Your task to perform on an android device: toggle airplane mode Image 0: 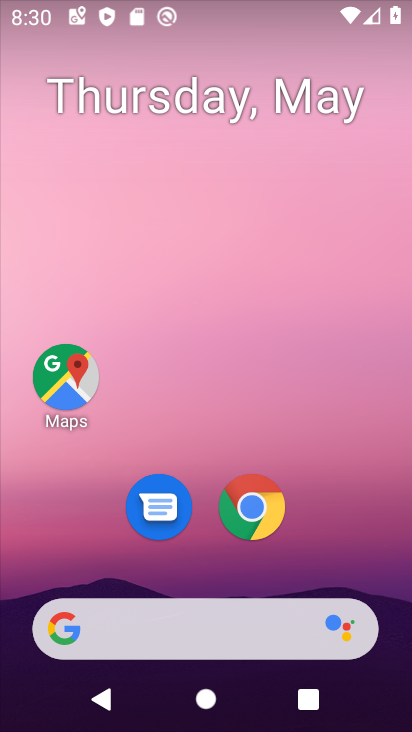
Step 0: drag from (381, 560) to (361, 95)
Your task to perform on an android device: toggle airplane mode Image 1: 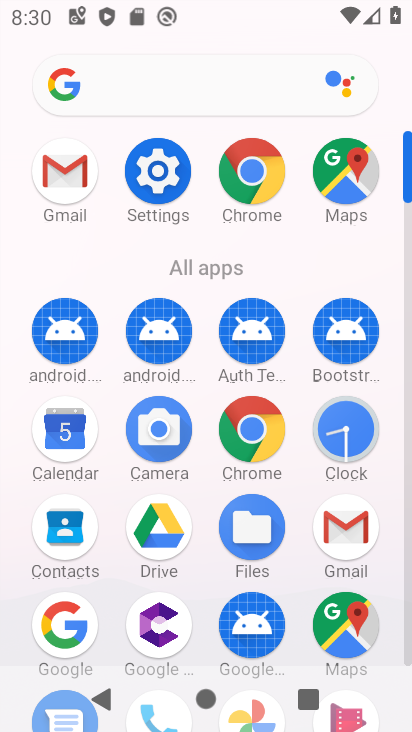
Step 1: click (153, 186)
Your task to perform on an android device: toggle airplane mode Image 2: 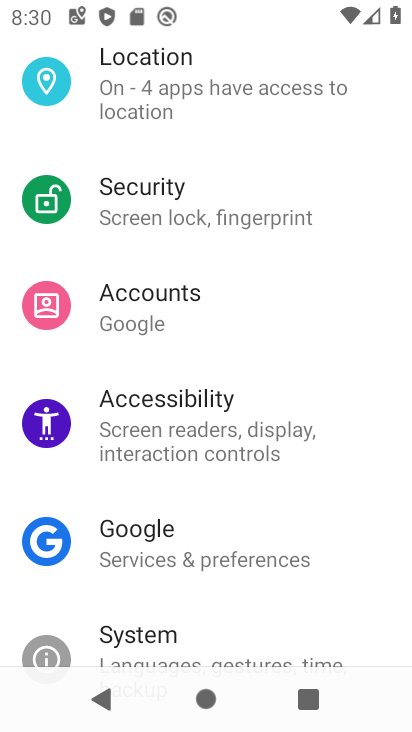
Step 2: drag from (336, 584) to (339, 214)
Your task to perform on an android device: toggle airplane mode Image 3: 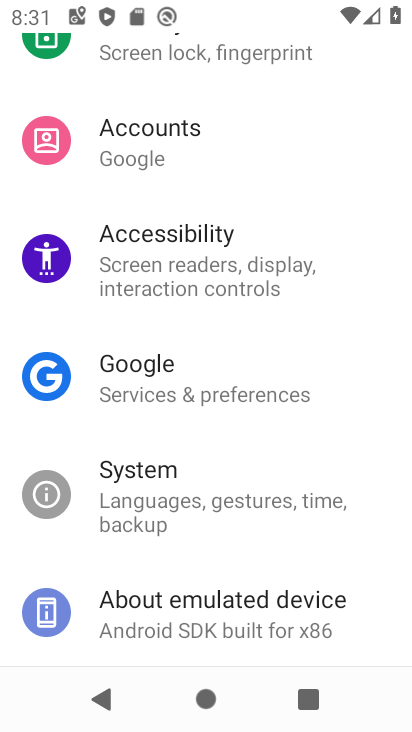
Step 3: drag from (310, 118) to (279, 636)
Your task to perform on an android device: toggle airplane mode Image 4: 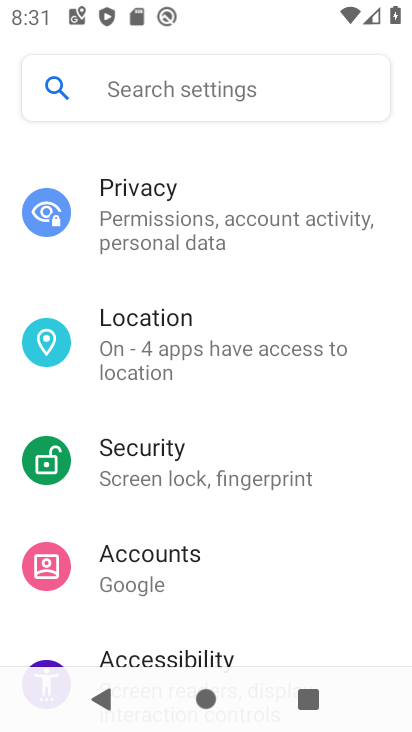
Step 4: drag from (301, 191) to (294, 574)
Your task to perform on an android device: toggle airplane mode Image 5: 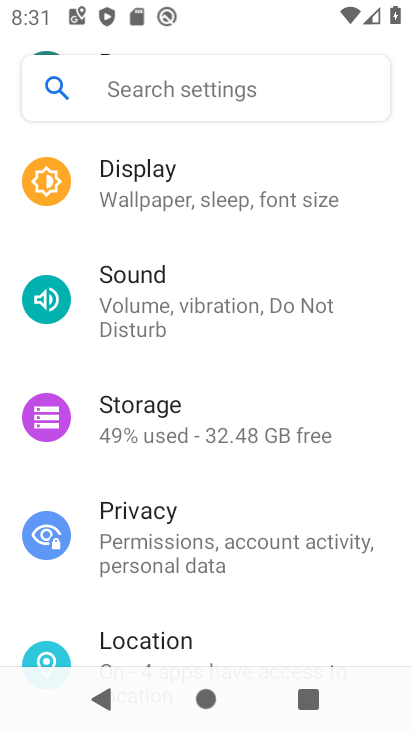
Step 5: drag from (301, 217) to (297, 593)
Your task to perform on an android device: toggle airplane mode Image 6: 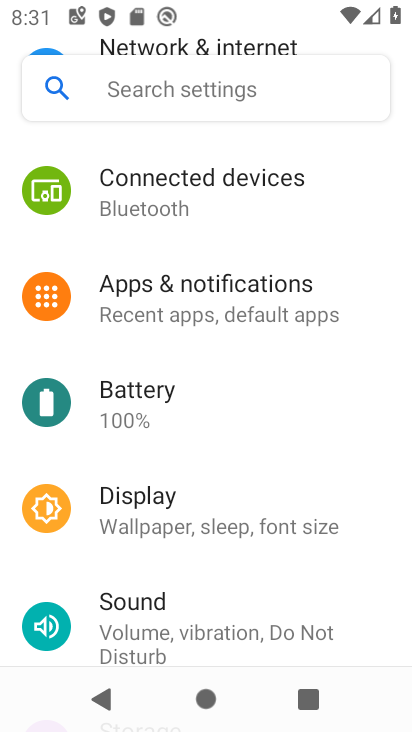
Step 6: drag from (303, 193) to (312, 622)
Your task to perform on an android device: toggle airplane mode Image 7: 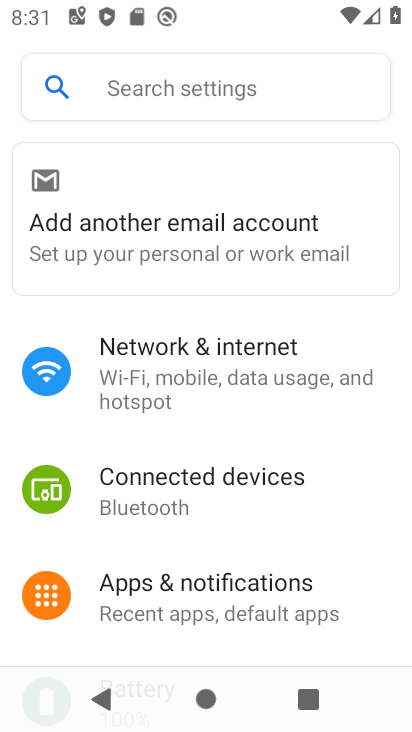
Step 7: click (278, 358)
Your task to perform on an android device: toggle airplane mode Image 8: 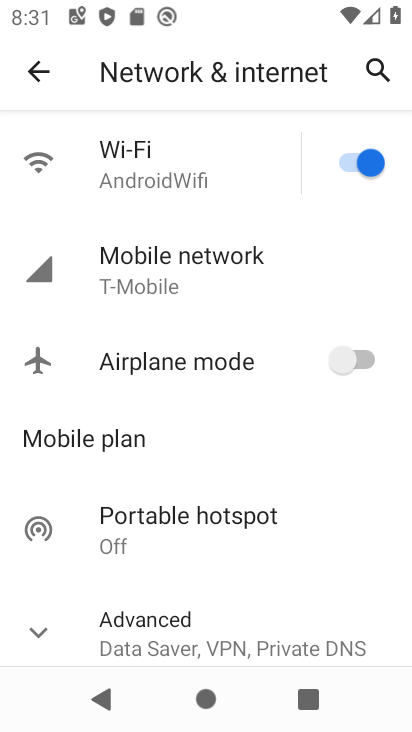
Step 8: click (358, 360)
Your task to perform on an android device: toggle airplane mode Image 9: 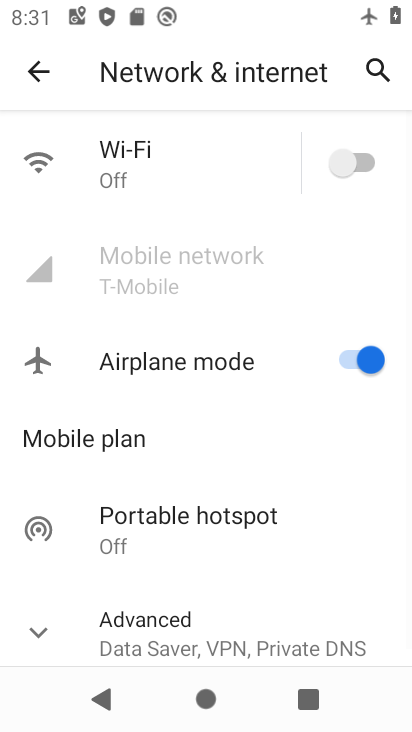
Step 9: task complete